Your task to perform on an android device: allow notifications from all sites in the chrome app Image 0: 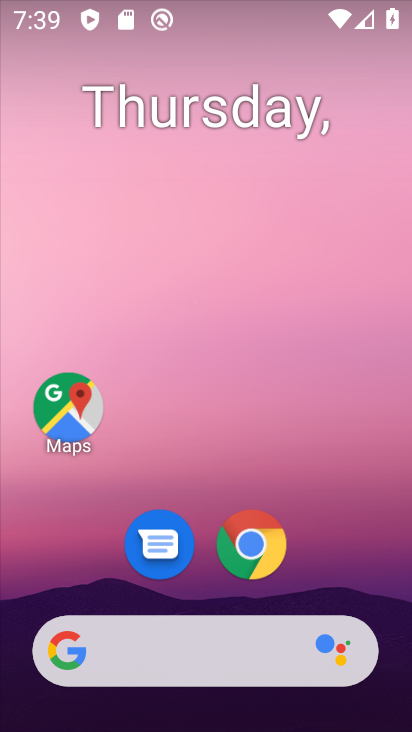
Step 0: click (251, 543)
Your task to perform on an android device: allow notifications from all sites in the chrome app Image 1: 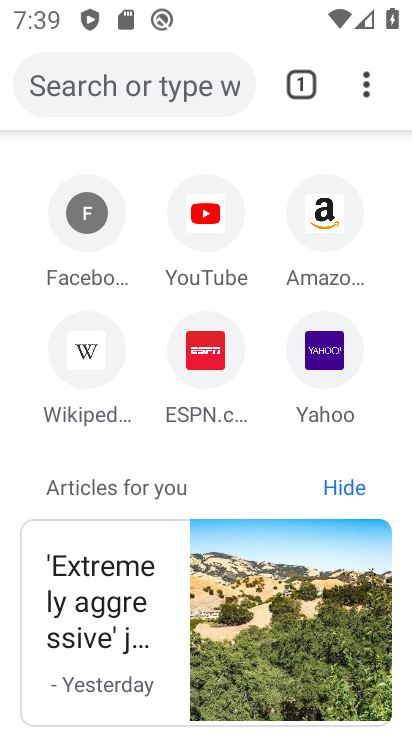
Step 1: click (368, 86)
Your task to perform on an android device: allow notifications from all sites in the chrome app Image 2: 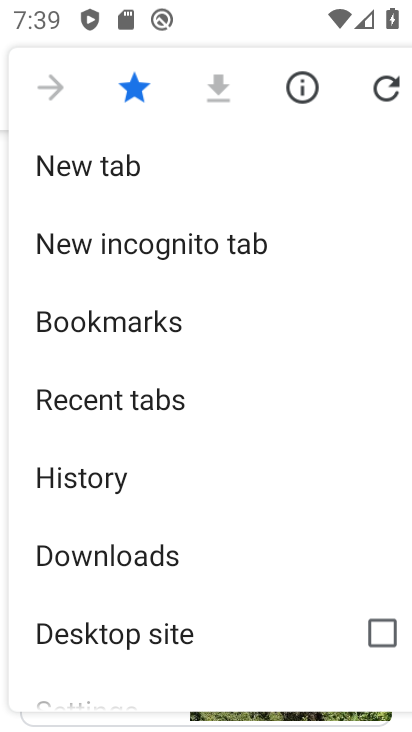
Step 2: drag from (183, 519) to (190, 445)
Your task to perform on an android device: allow notifications from all sites in the chrome app Image 3: 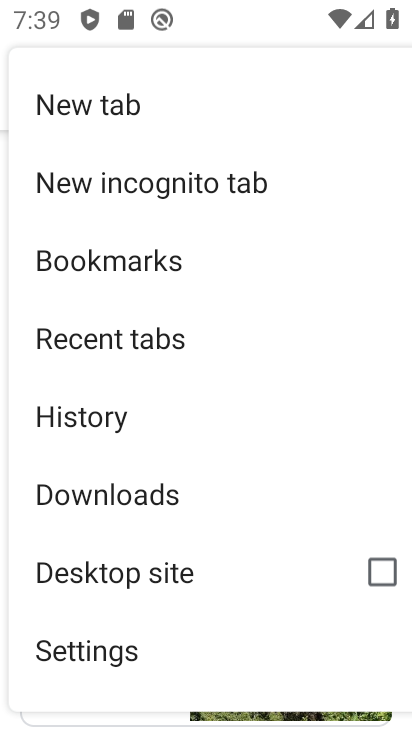
Step 3: drag from (210, 537) to (268, 420)
Your task to perform on an android device: allow notifications from all sites in the chrome app Image 4: 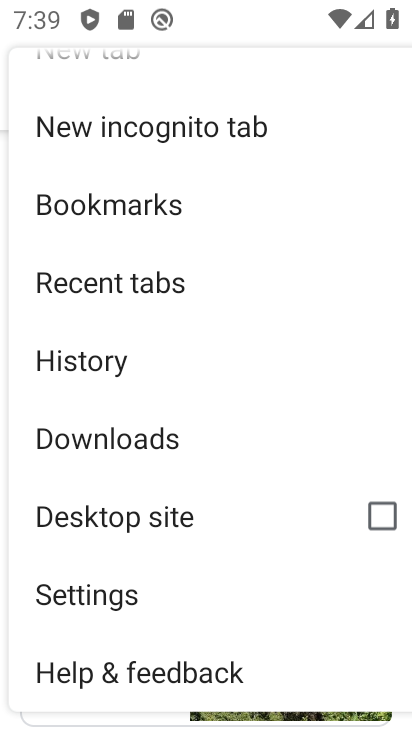
Step 4: drag from (194, 575) to (182, 514)
Your task to perform on an android device: allow notifications from all sites in the chrome app Image 5: 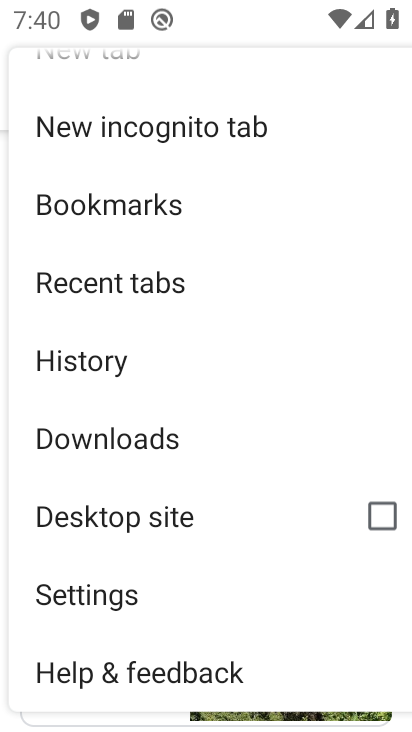
Step 5: click (120, 594)
Your task to perform on an android device: allow notifications from all sites in the chrome app Image 6: 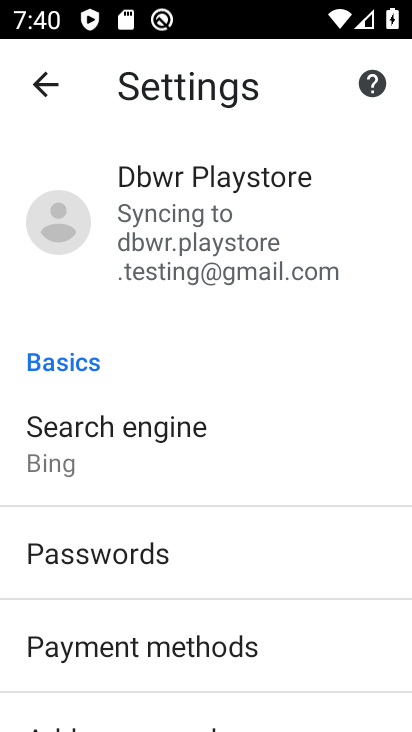
Step 6: drag from (214, 571) to (308, 462)
Your task to perform on an android device: allow notifications from all sites in the chrome app Image 7: 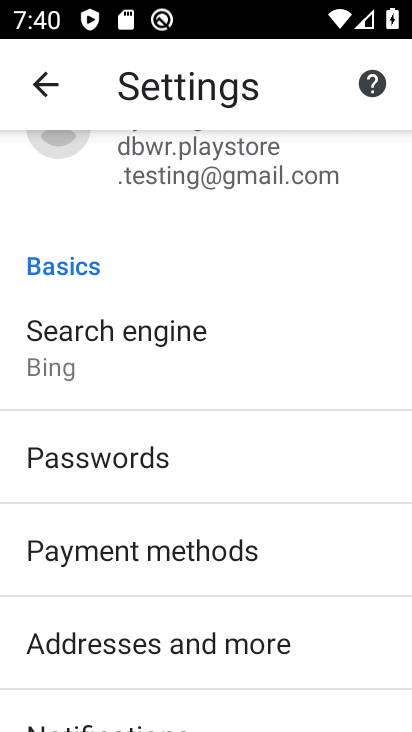
Step 7: drag from (156, 614) to (202, 497)
Your task to perform on an android device: allow notifications from all sites in the chrome app Image 8: 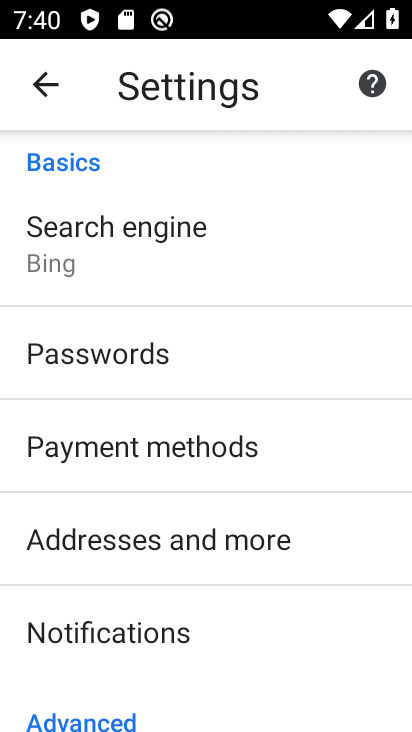
Step 8: drag from (172, 627) to (222, 500)
Your task to perform on an android device: allow notifications from all sites in the chrome app Image 9: 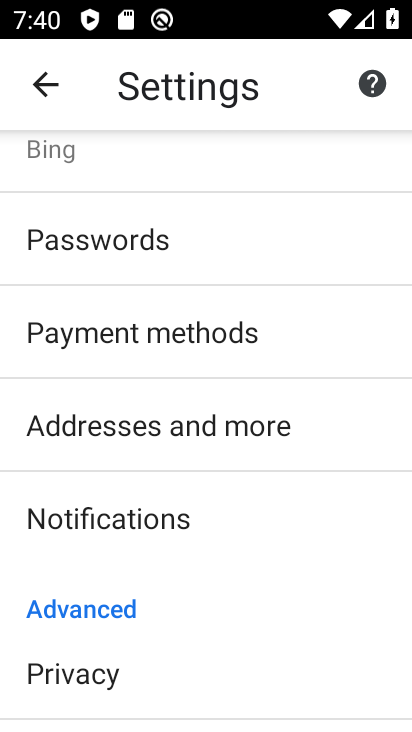
Step 9: drag from (164, 600) to (235, 507)
Your task to perform on an android device: allow notifications from all sites in the chrome app Image 10: 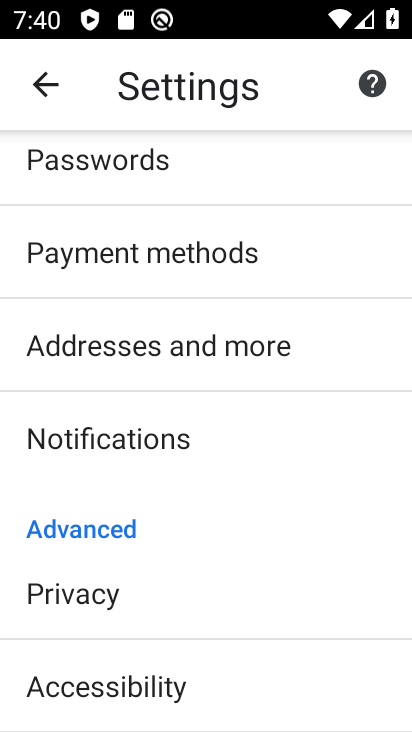
Step 10: drag from (175, 614) to (229, 487)
Your task to perform on an android device: allow notifications from all sites in the chrome app Image 11: 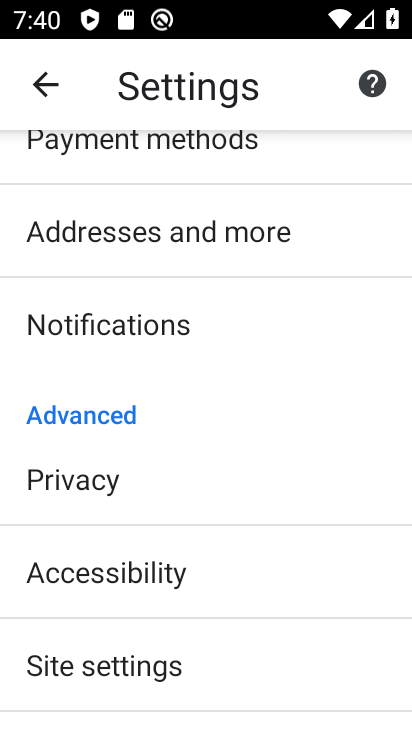
Step 11: drag from (191, 624) to (279, 506)
Your task to perform on an android device: allow notifications from all sites in the chrome app Image 12: 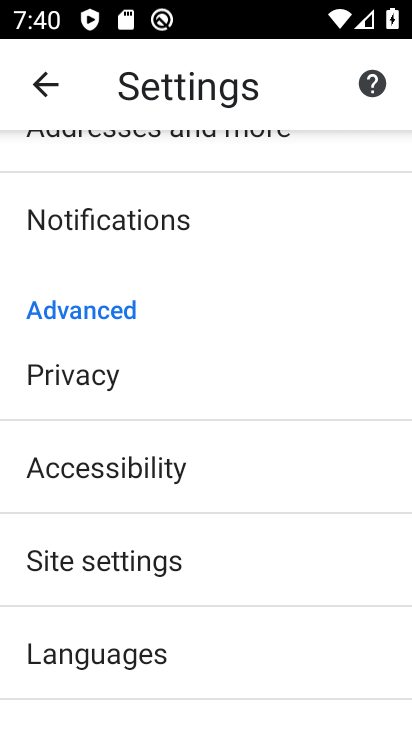
Step 12: click (107, 553)
Your task to perform on an android device: allow notifications from all sites in the chrome app Image 13: 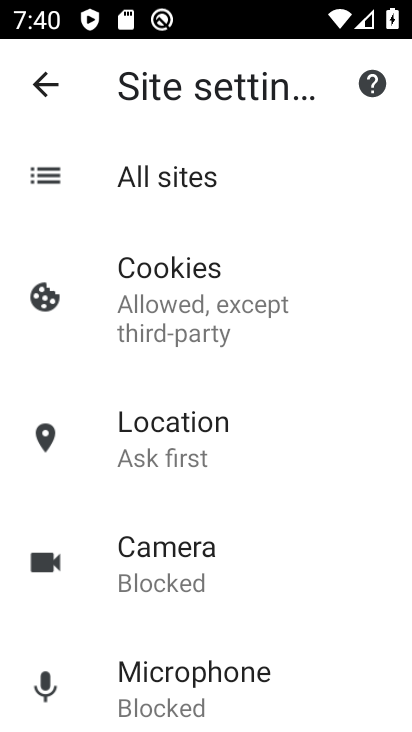
Step 13: drag from (123, 611) to (192, 501)
Your task to perform on an android device: allow notifications from all sites in the chrome app Image 14: 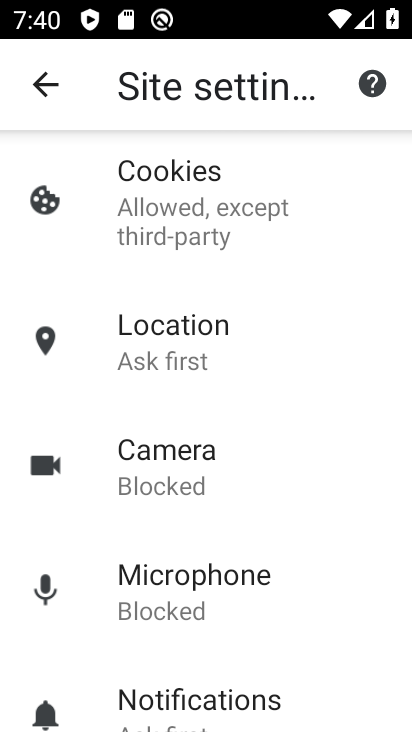
Step 14: drag from (198, 656) to (253, 551)
Your task to perform on an android device: allow notifications from all sites in the chrome app Image 15: 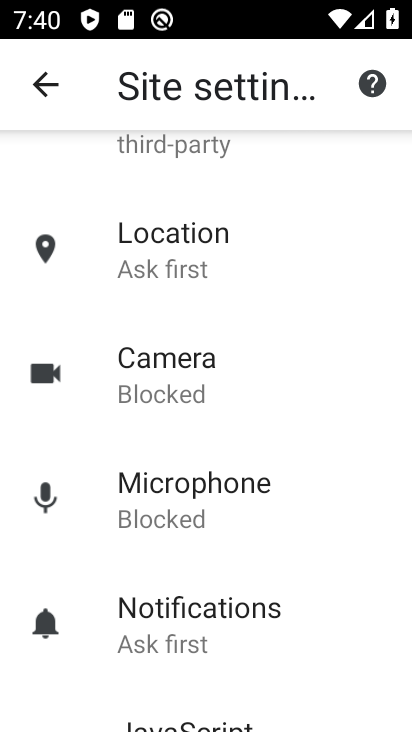
Step 15: drag from (182, 567) to (247, 458)
Your task to perform on an android device: allow notifications from all sites in the chrome app Image 16: 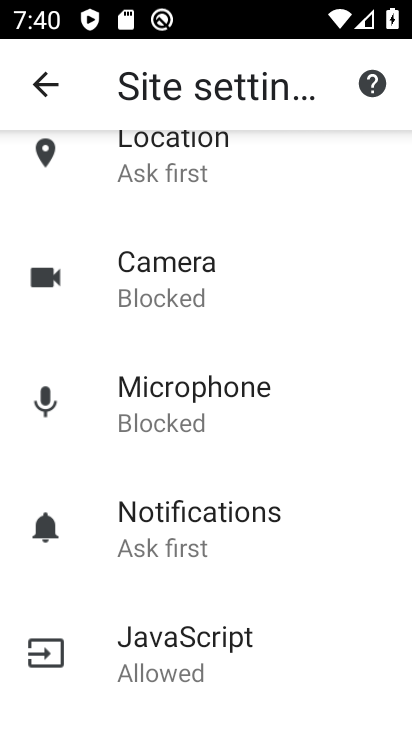
Step 16: click (189, 509)
Your task to perform on an android device: allow notifications from all sites in the chrome app Image 17: 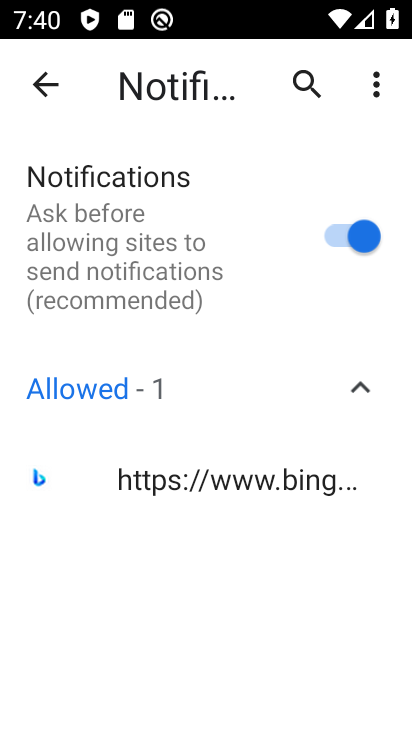
Step 17: task complete